Your task to perform on an android device: clear all cookies in the chrome app Image 0: 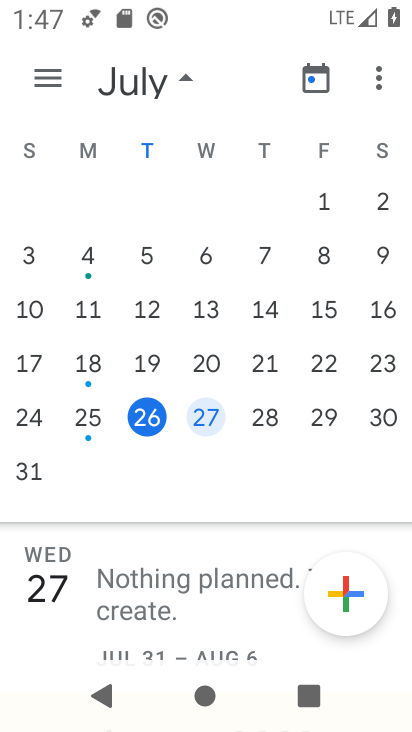
Step 0: press home button
Your task to perform on an android device: clear all cookies in the chrome app Image 1: 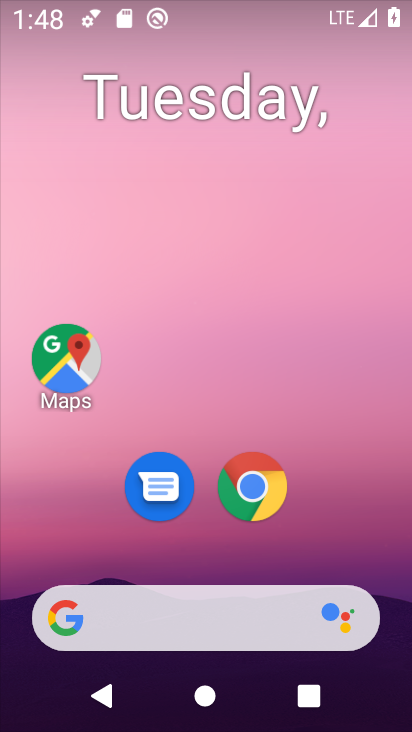
Step 1: drag from (342, 544) to (357, 113)
Your task to perform on an android device: clear all cookies in the chrome app Image 2: 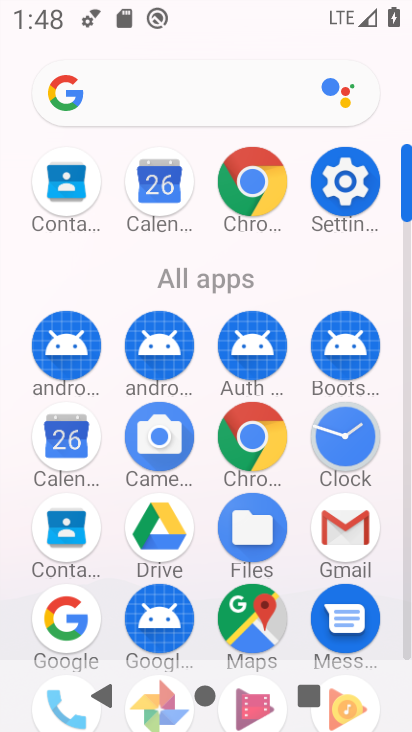
Step 2: click (252, 450)
Your task to perform on an android device: clear all cookies in the chrome app Image 3: 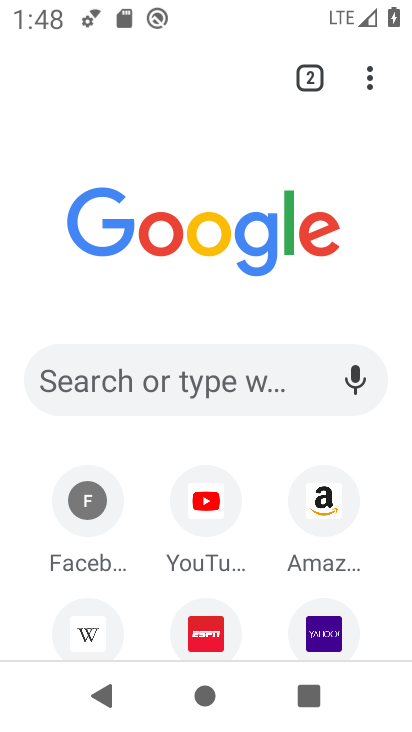
Step 3: click (367, 87)
Your task to perform on an android device: clear all cookies in the chrome app Image 4: 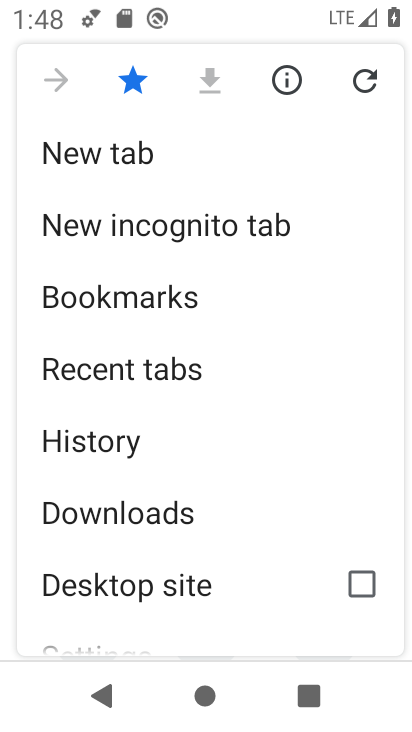
Step 4: drag from (301, 369) to (304, 320)
Your task to perform on an android device: clear all cookies in the chrome app Image 5: 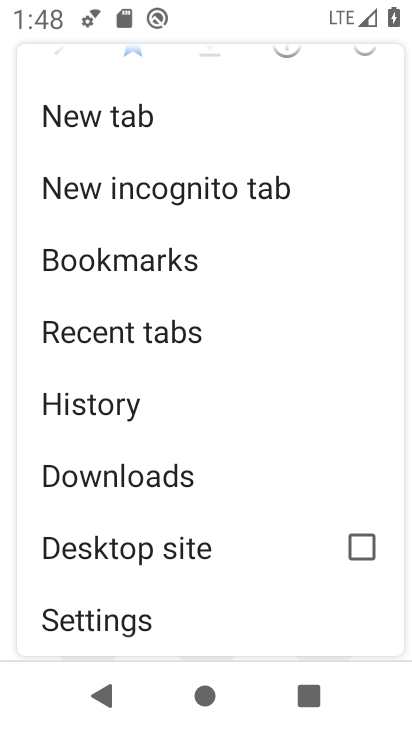
Step 5: drag from (276, 426) to (287, 349)
Your task to perform on an android device: clear all cookies in the chrome app Image 6: 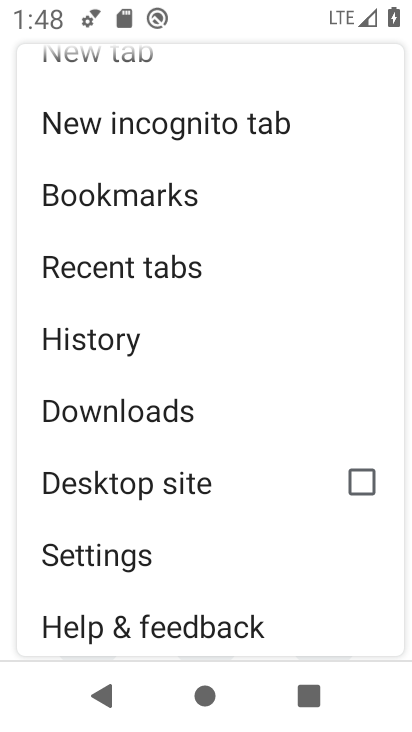
Step 6: drag from (283, 462) to (286, 354)
Your task to perform on an android device: clear all cookies in the chrome app Image 7: 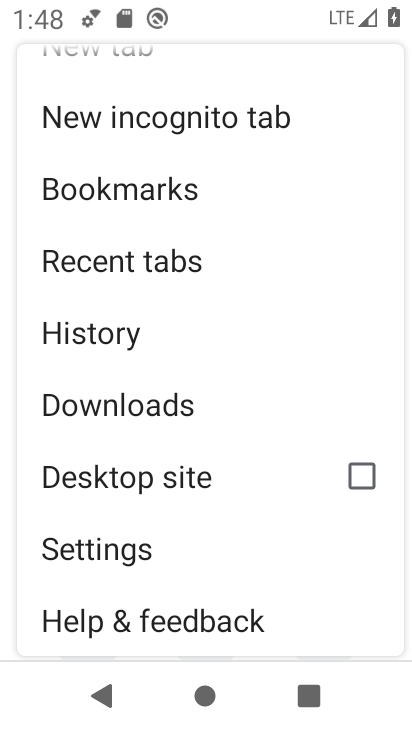
Step 7: click (190, 549)
Your task to perform on an android device: clear all cookies in the chrome app Image 8: 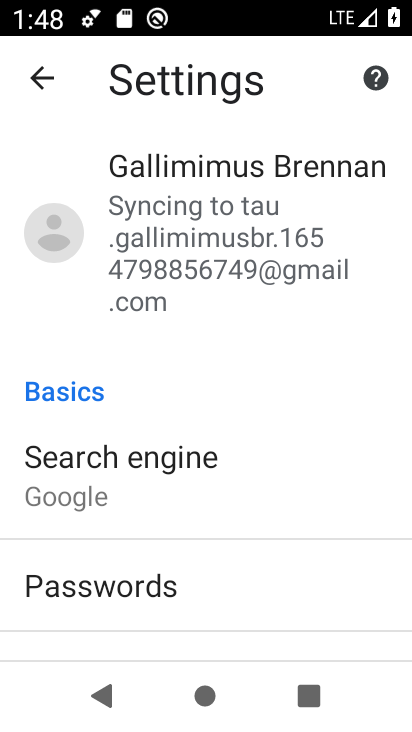
Step 8: drag from (289, 610) to (305, 510)
Your task to perform on an android device: clear all cookies in the chrome app Image 9: 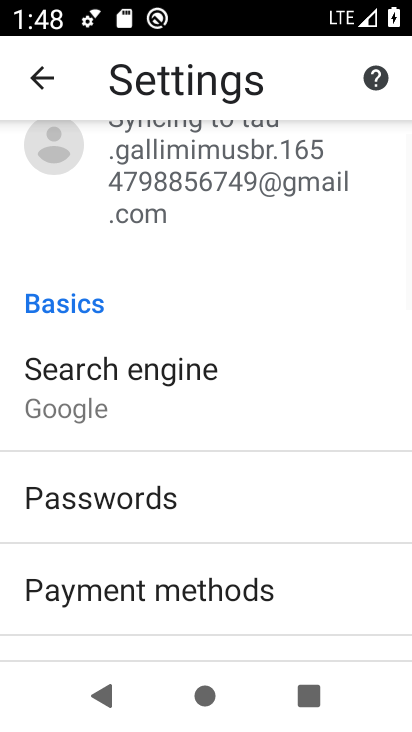
Step 9: drag from (314, 598) to (314, 502)
Your task to perform on an android device: clear all cookies in the chrome app Image 10: 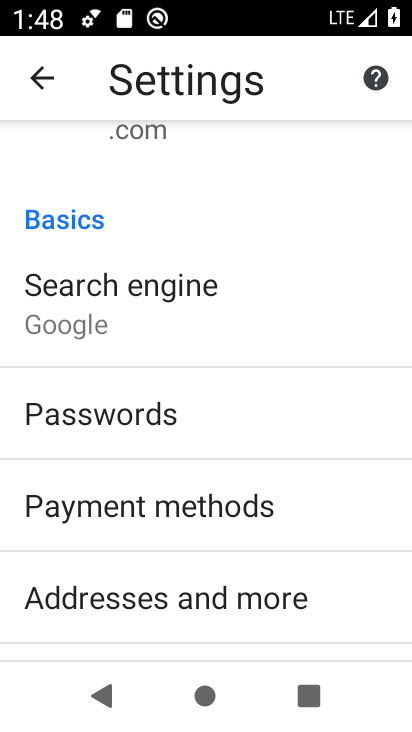
Step 10: drag from (318, 636) to (318, 542)
Your task to perform on an android device: clear all cookies in the chrome app Image 11: 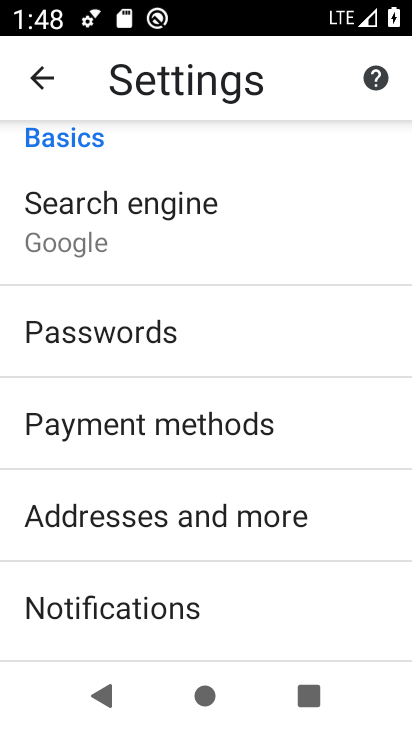
Step 11: drag from (310, 632) to (315, 577)
Your task to perform on an android device: clear all cookies in the chrome app Image 12: 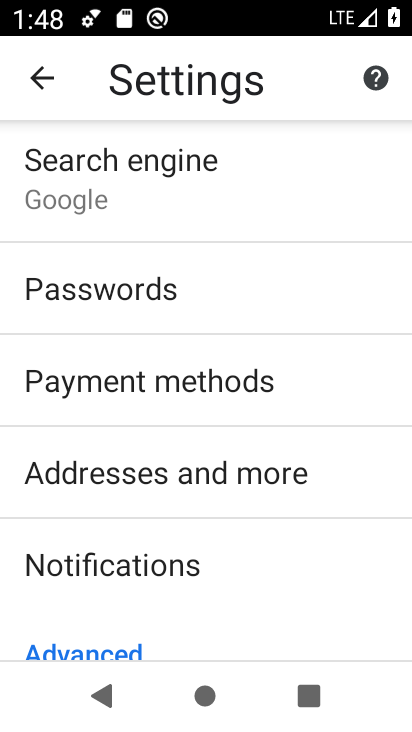
Step 12: drag from (318, 633) to (318, 523)
Your task to perform on an android device: clear all cookies in the chrome app Image 13: 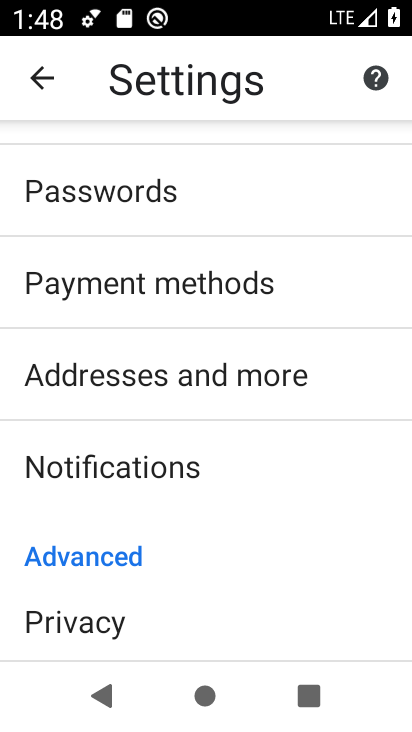
Step 13: drag from (233, 575) to (233, 480)
Your task to perform on an android device: clear all cookies in the chrome app Image 14: 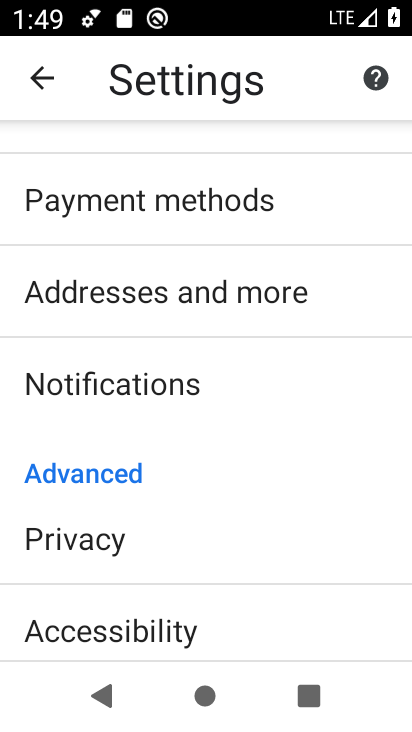
Step 14: drag from (267, 556) to (273, 471)
Your task to perform on an android device: clear all cookies in the chrome app Image 15: 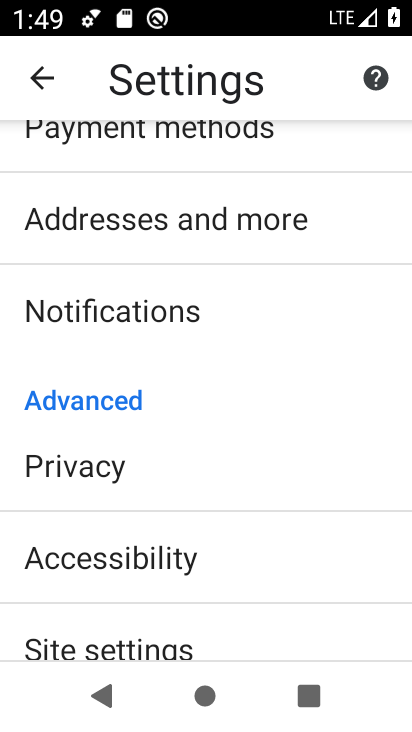
Step 15: drag from (261, 618) to (293, 450)
Your task to perform on an android device: clear all cookies in the chrome app Image 16: 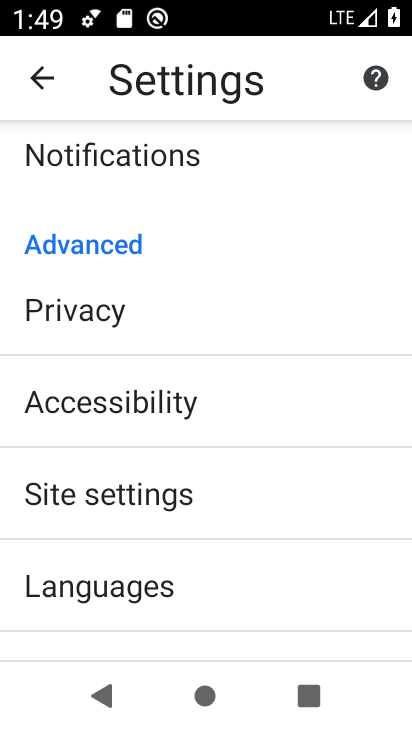
Step 16: drag from (299, 557) to (308, 375)
Your task to perform on an android device: clear all cookies in the chrome app Image 17: 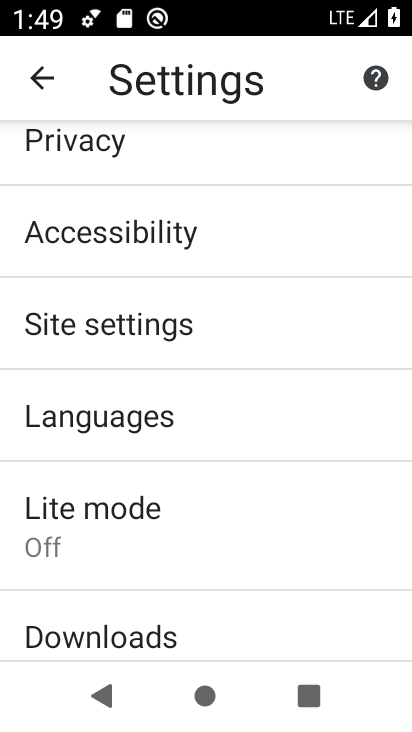
Step 17: click (221, 157)
Your task to perform on an android device: clear all cookies in the chrome app Image 18: 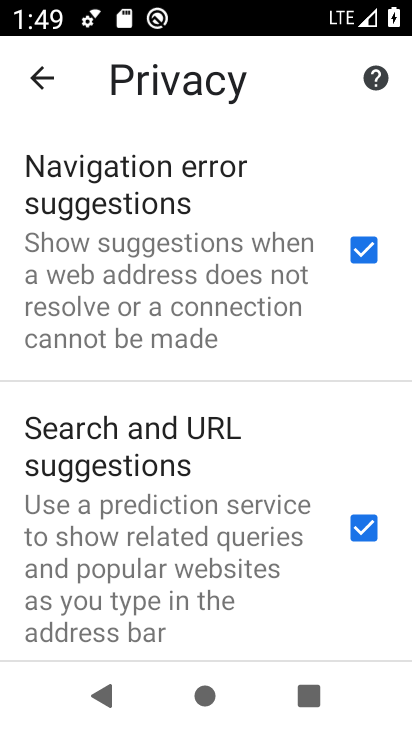
Step 18: drag from (281, 495) to (291, 334)
Your task to perform on an android device: clear all cookies in the chrome app Image 19: 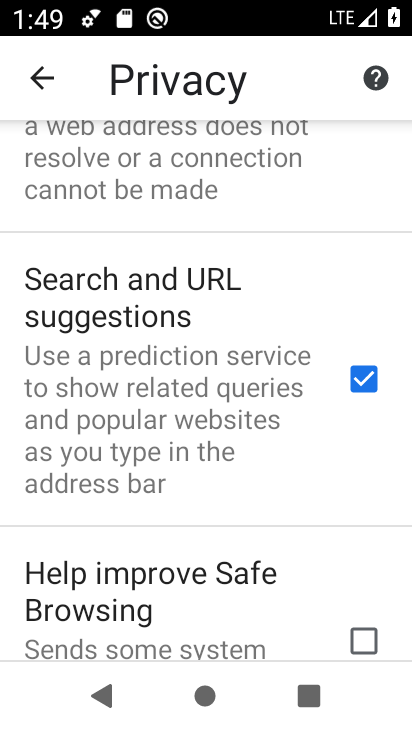
Step 19: drag from (262, 570) to (262, 357)
Your task to perform on an android device: clear all cookies in the chrome app Image 20: 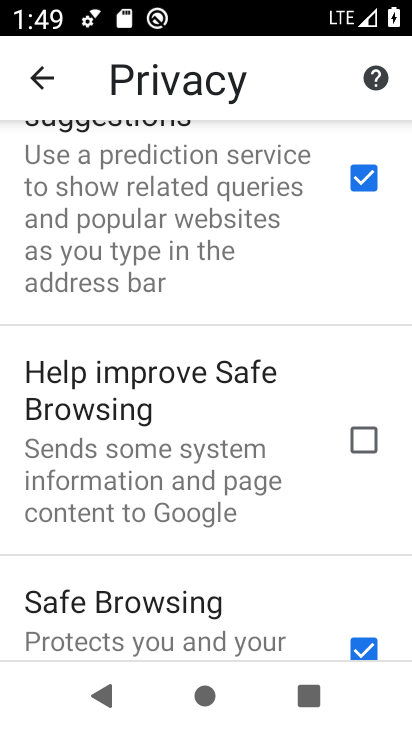
Step 20: drag from (268, 520) to (280, 409)
Your task to perform on an android device: clear all cookies in the chrome app Image 21: 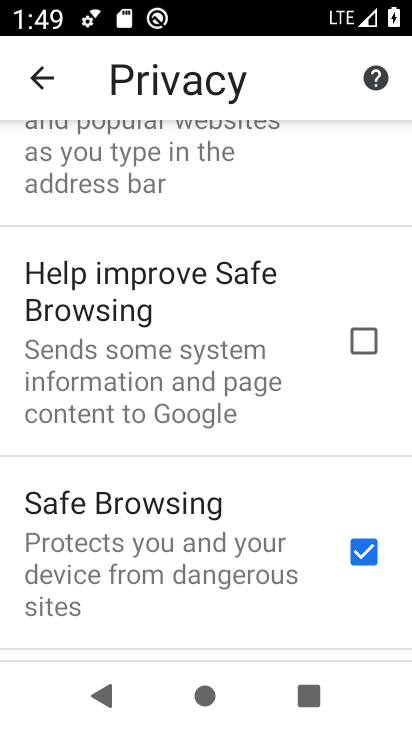
Step 21: drag from (273, 571) to (269, 290)
Your task to perform on an android device: clear all cookies in the chrome app Image 22: 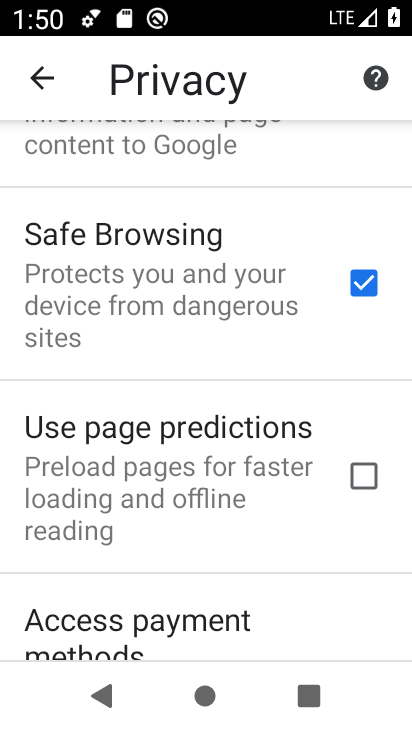
Step 22: drag from (239, 578) to (260, 329)
Your task to perform on an android device: clear all cookies in the chrome app Image 23: 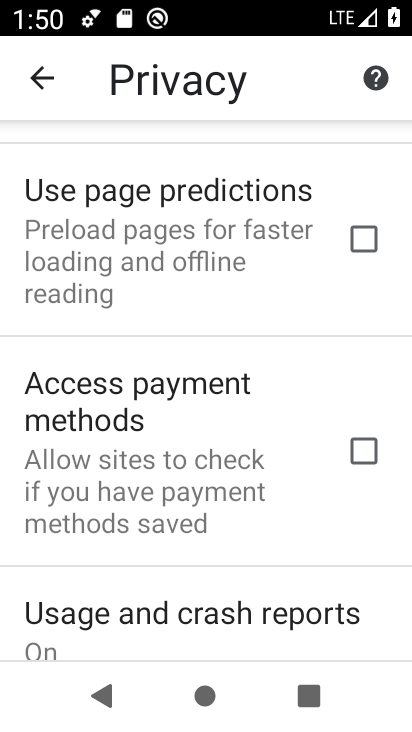
Step 23: drag from (252, 556) to (252, 342)
Your task to perform on an android device: clear all cookies in the chrome app Image 24: 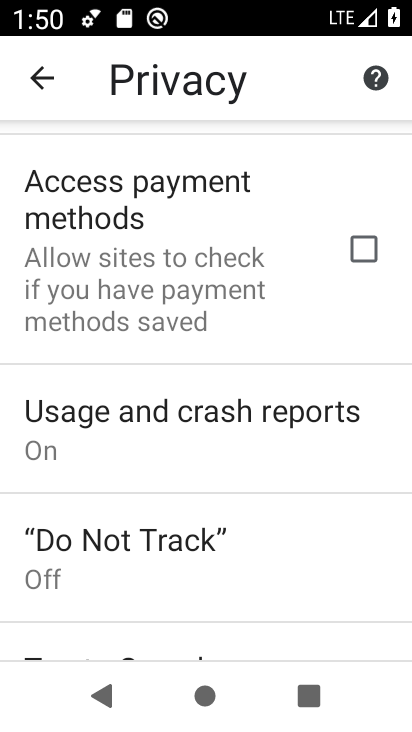
Step 24: drag from (231, 609) to (243, 371)
Your task to perform on an android device: clear all cookies in the chrome app Image 25: 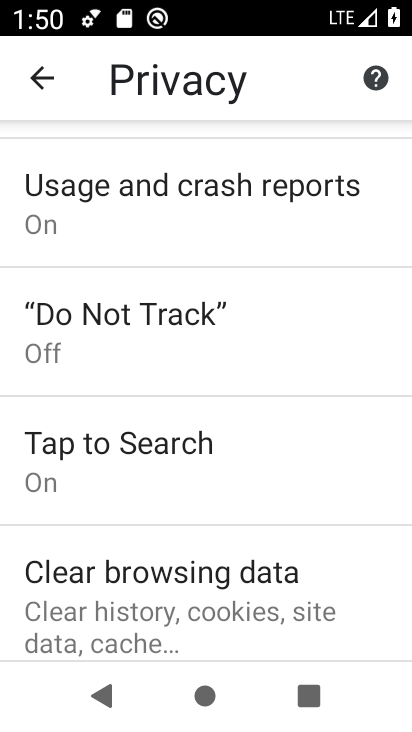
Step 25: click (242, 592)
Your task to perform on an android device: clear all cookies in the chrome app Image 26: 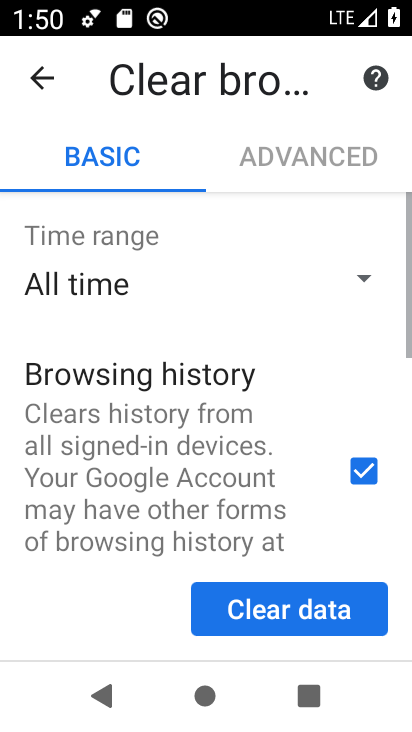
Step 26: click (277, 591)
Your task to perform on an android device: clear all cookies in the chrome app Image 27: 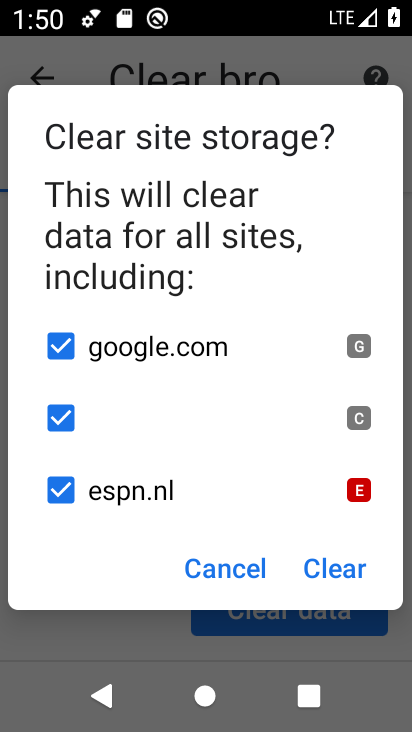
Step 27: click (325, 567)
Your task to perform on an android device: clear all cookies in the chrome app Image 28: 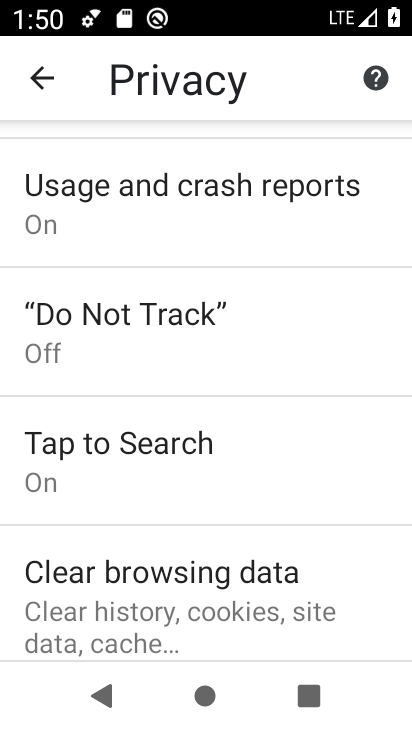
Step 28: task complete